Your task to perform on an android device: Open maps Image 0: 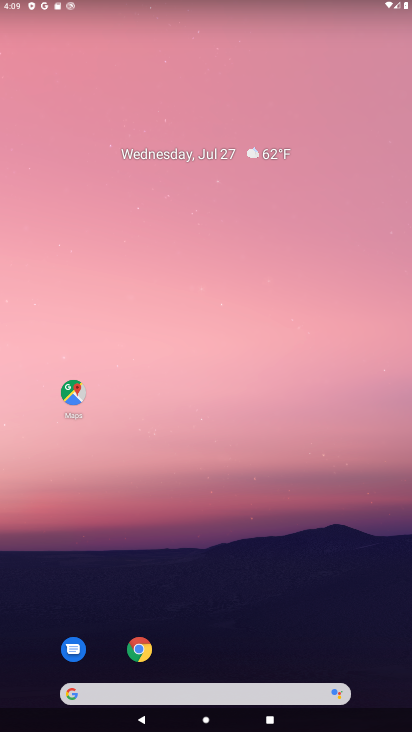
Step 0: click (66, 393)
Your task to perform on an android device: Open maps Image 1: 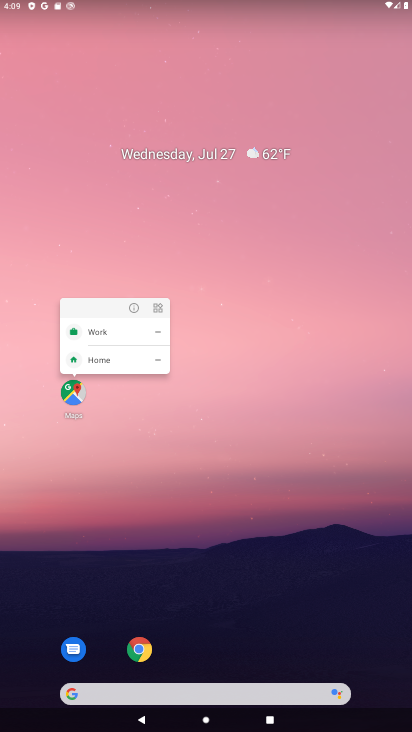
Step 1: click (82, 386)
Your task to perform on an android device: Open maps Image 2: 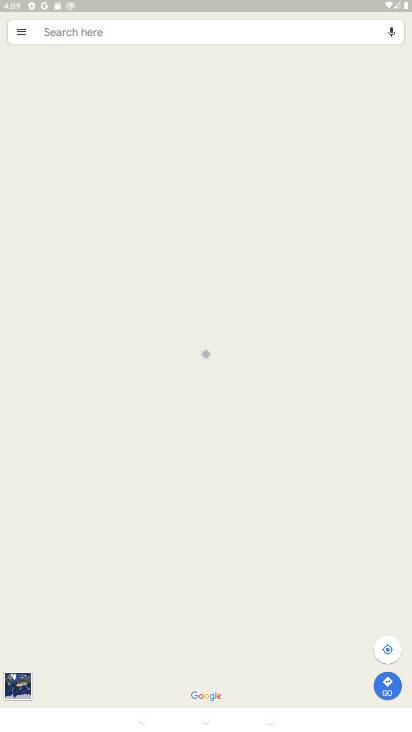
Step 2: task complete